Your task to perform on an android device: turn notification dots on Image 0: 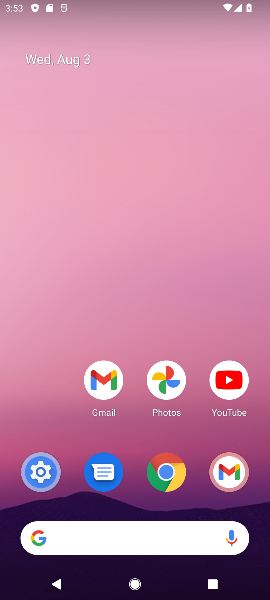
Step 0: drag from (202, 491) to (58, 65)
Your task to perform on an android device: turn notification dots on Image 1: 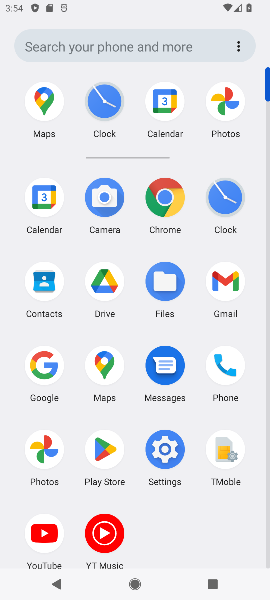
Step 1: click (166, 441)
Your task to perform on an android device: turn notification dots on Image 2: 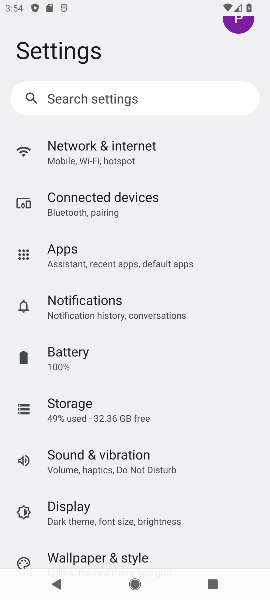
Step 2: click (78, 318)
Your task to perform on an android device: turn notification dots on Image 3: 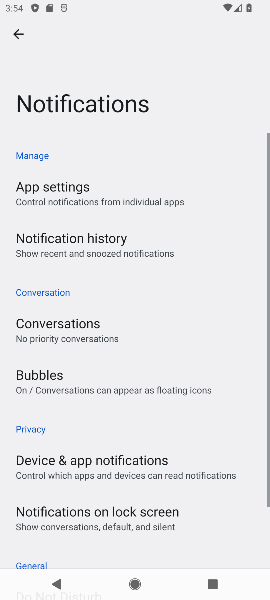
Step 3: drag from (138, 522) to (138, 30)
Your task to perform on an android device: turn notification dots on Image 4: 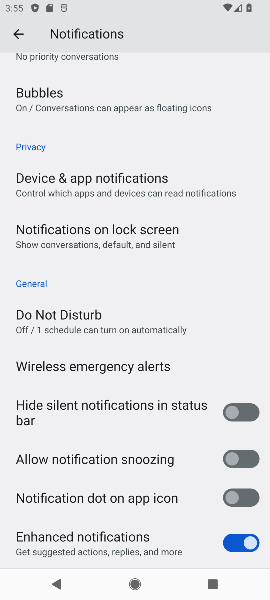
Step 4: click (235, 499)
Your task to perform on an android device: turn notification dots on Image 5: 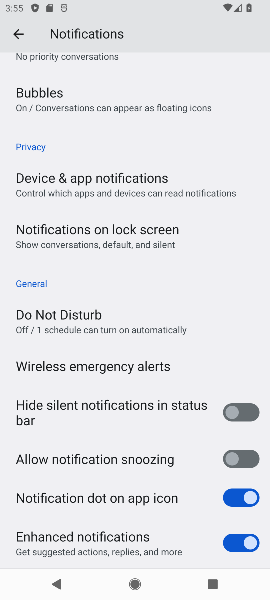
Step 5: task complete